Your task to perform on an android device: Open calendar and show me the second week of next month Image 0: 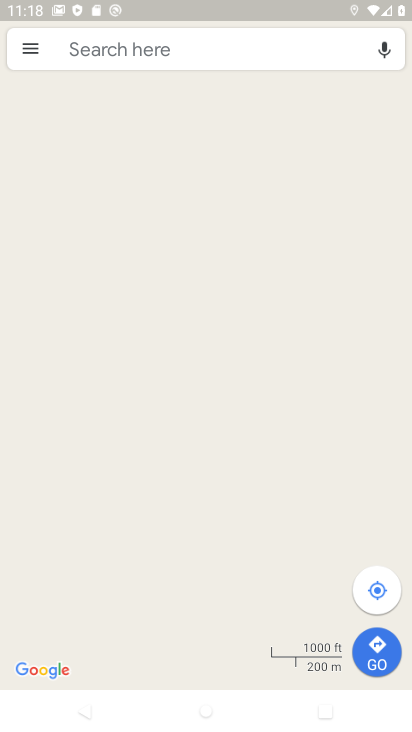
Step 0: press home button
Your task to perform on an android device: Open calendar and show me the second week of next month Image 1: 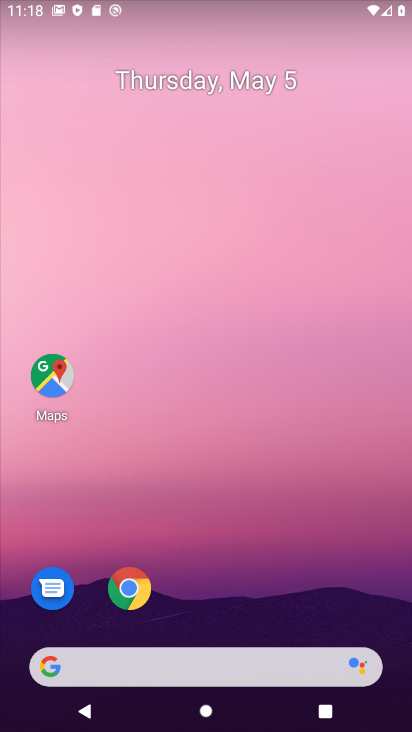
Step 1: drag from (161, 663) to (308, 201)
Your task to perform on an android device: Open calendar and show me the second week of next month Image 2: 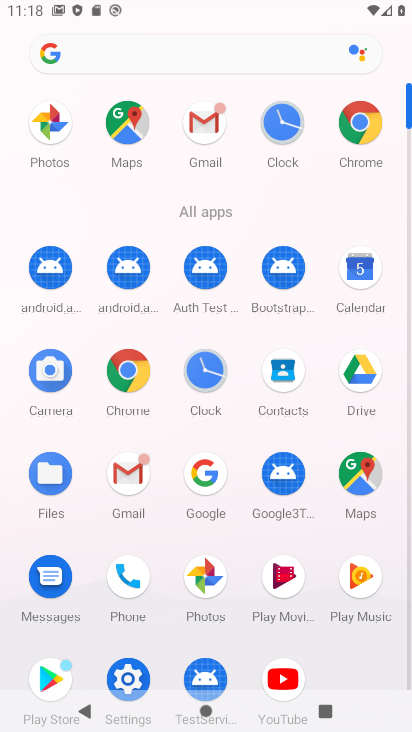
Step 2: click (362, 279)
Your task to perform on an android device: Open calendar and show me the second week of next month Image 3: 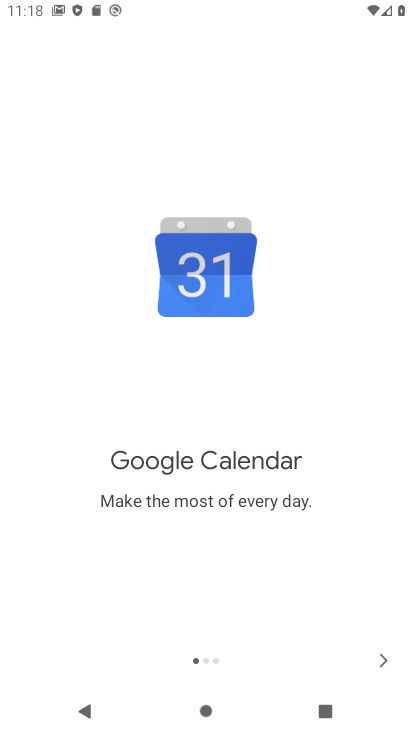
Step 3: click (380, 654)
Your task to perform on an android device: Open calendar and show me the second week of next month Image 4: 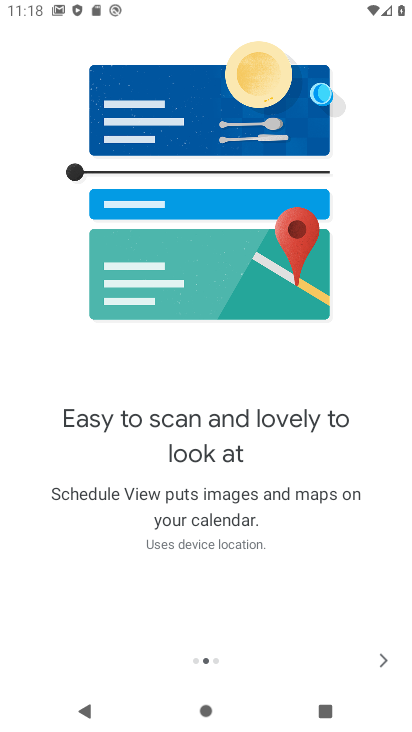
Step 4: click (380, 660)
Your task to perform on an android device: Open calendar and show me the second week of next month Image 5: 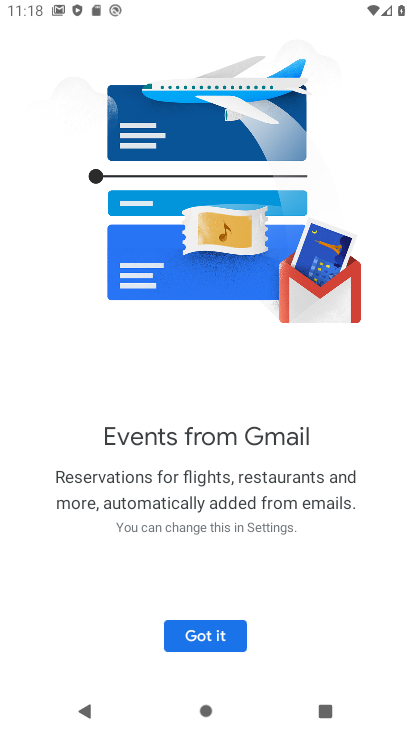
Step 5: click (215, 629)
Your task to perform on an android device: Open calendar and show me the second week of next month Image 6: 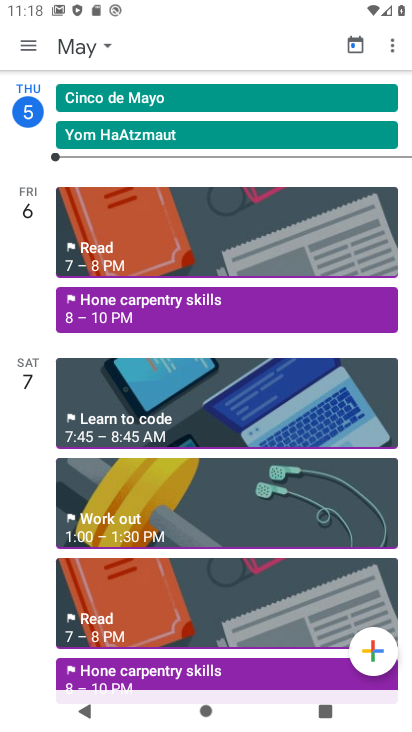
Step 6: click (73, 51)
Your task to perform on an android device: Open calendar and show me the second week of next month Image 7: 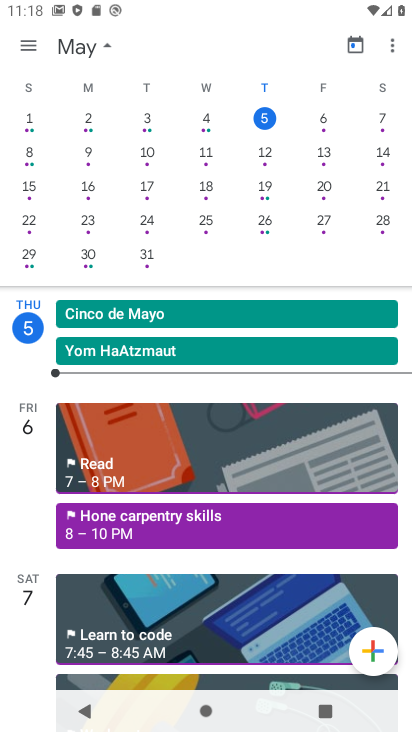
Step 7: drag from (383, 187) to (8, 183)
Your task to perform on an android device: Open calendar and show me the second week of next month Image 8: 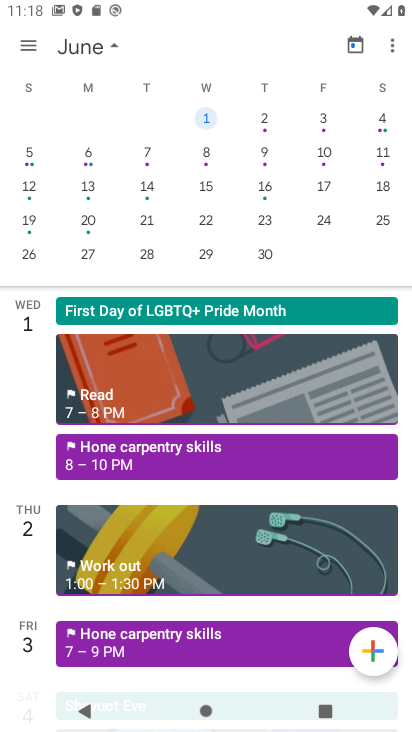
Step 8: click (28, 154)
Your task to perform on an android device: Open calendar and show me the second week of next month Image 9: 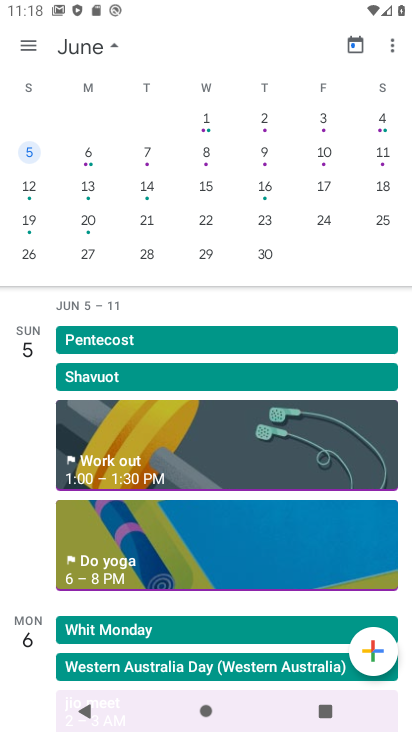
Step 9: click (32, 43)
Your task to perform on an android device: Open calendar and show me the second week of next month Image 10: 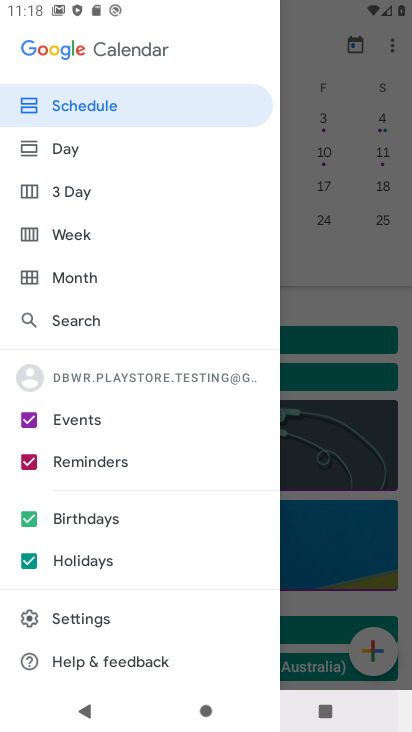
Step 10: click (67, 233)
Your task to perform on an android device: Open calendar and show me the second week of next month Image 11: 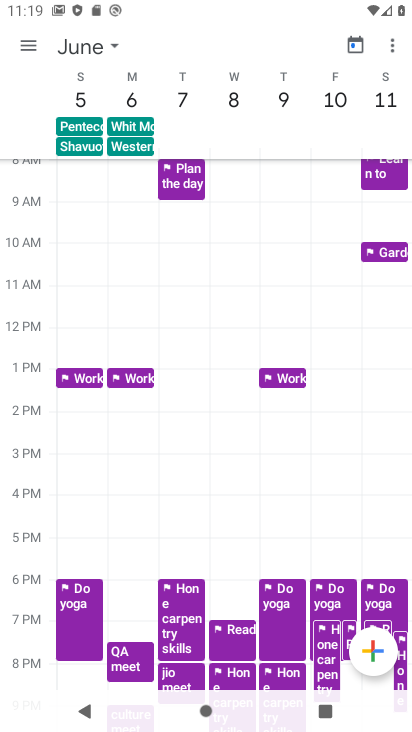
Step 11: task complete